Your task to perform on an android device: turn on bluetooth scan Image 0: 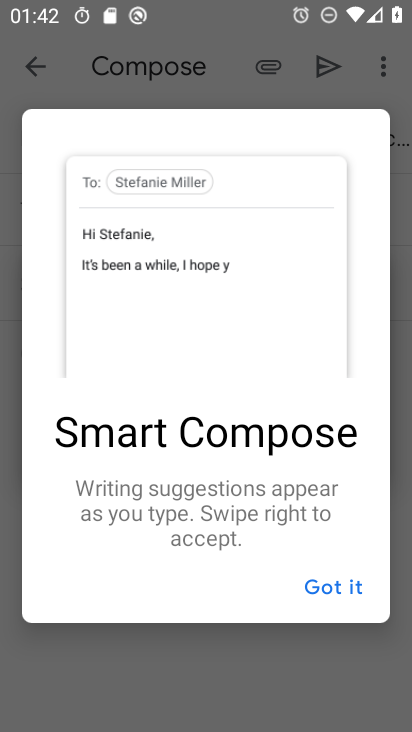
Step 0: press home button
Your task to perform on an android device: turn on bluetooth scan Image 1: 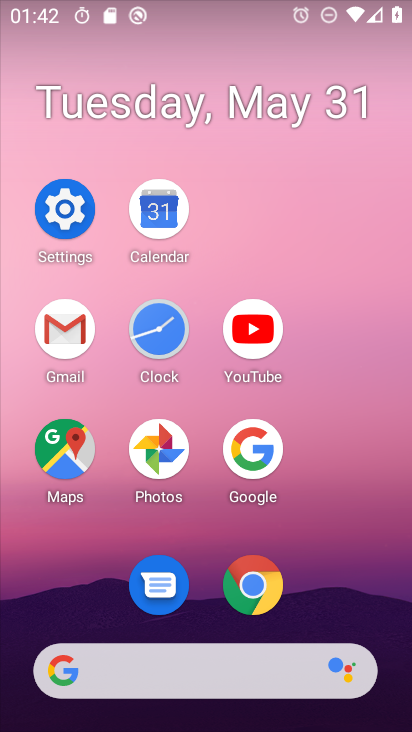
Step 1: click (88, 207)
Your task to perform on an android device: turn on bluetooth scan Image 2: 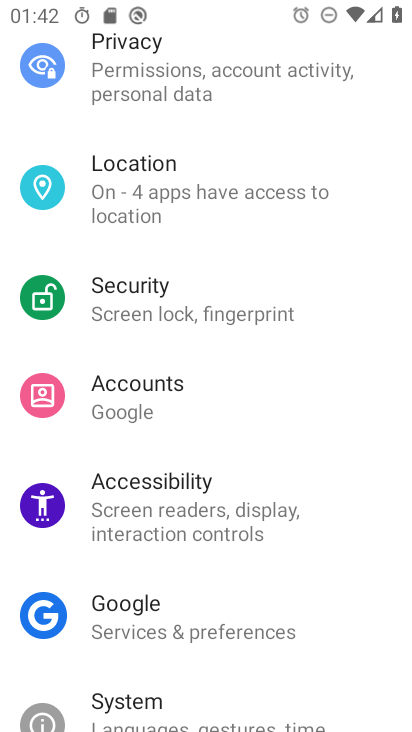
Step 2: click (257, 173)
Your task to perform on an android device: turn on bluetooth scan Image 3: 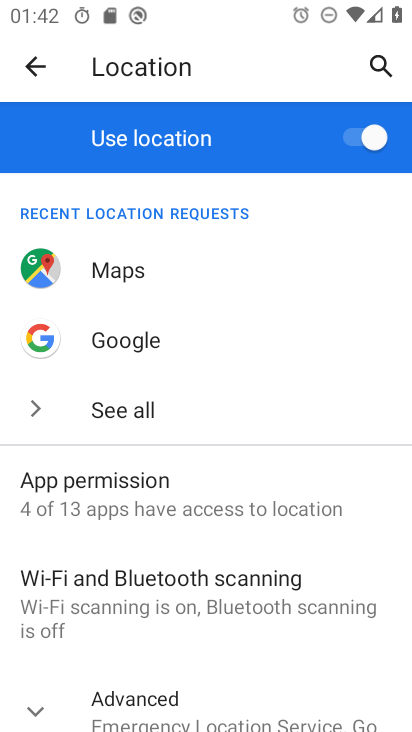
Step 3: click (246, 579)
Your task to perform on an android device: turn on bluetooth scan Image 4: 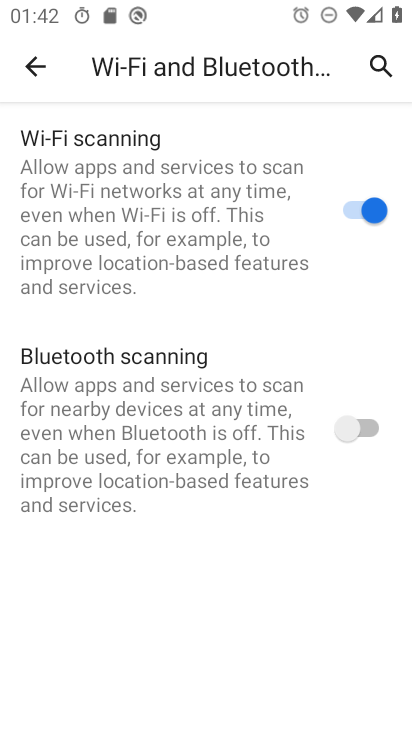
Step 4: click (343, 412)
Your task to perform on an android device: turn on bluetooth scan Image 5: 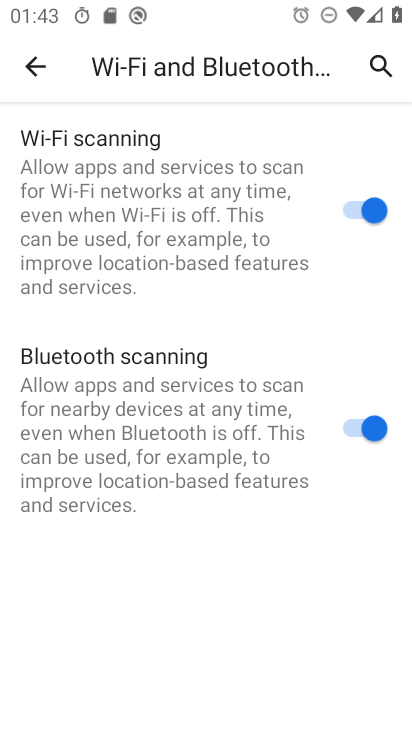
Step 5: task complete